Your task to perform on an android device: open chrome privacy settings Image 0: 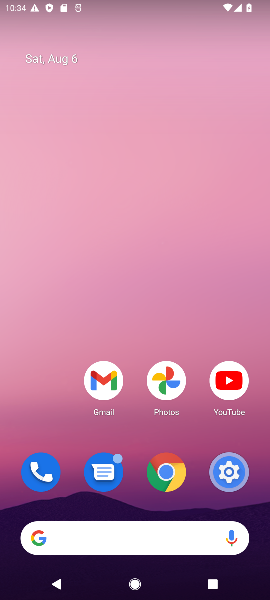
Step 0: drag from (195, 491) to (110, 19)
Your task to perform on an android device: open chrome privacy settings Image 1: 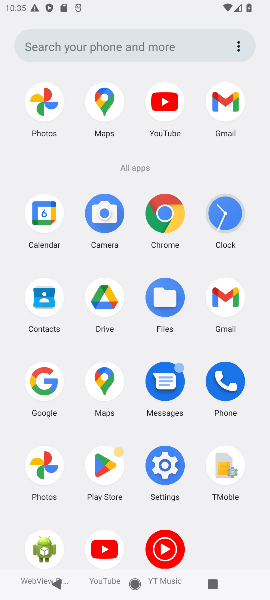
Step 1: click (169, 216)
Your task to perform on an android device: open chrome privacy settings Image 2: 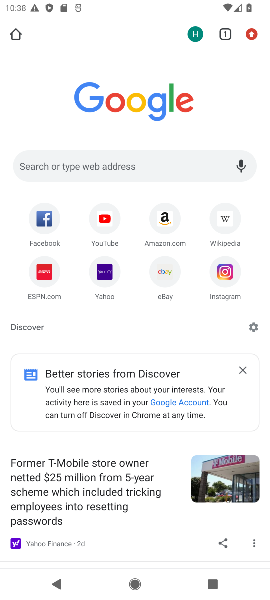
Step 2: click (250, 35)
Your task to perform on an android device: open chrome privacy settings Image 3: 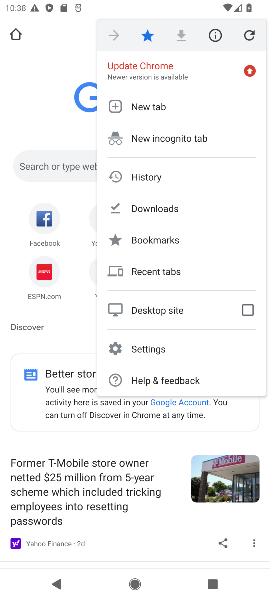
Step 3: click (142, 345)
Your task to perform on an android device: open chrome privacy settings Image 4: 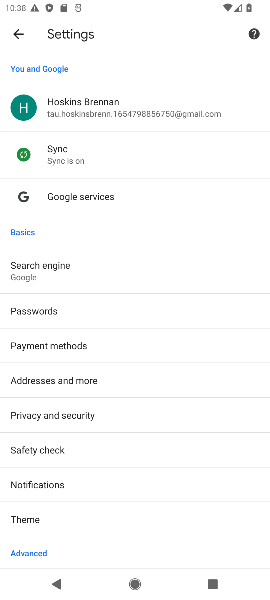
Step 4: drag from (55, 538) to (105, 137)
Your task to perform on an android device: open chrome privacy settings Image 5: 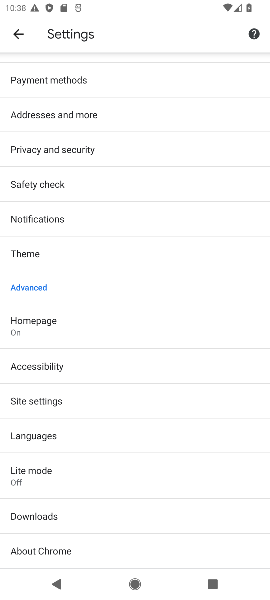
Step 5: click (92, 145)
Your task to perform on an android device: open chrome privacy settings Image 6: 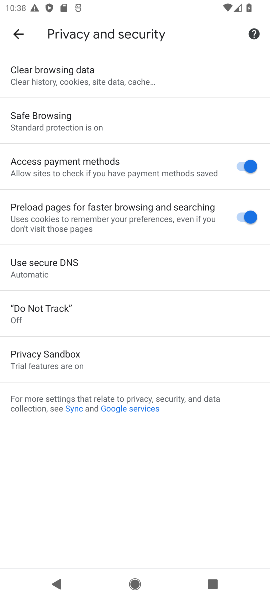
Step 6: task complete